Your task to perform on an android device: Open settings on Google Maps Image 0: 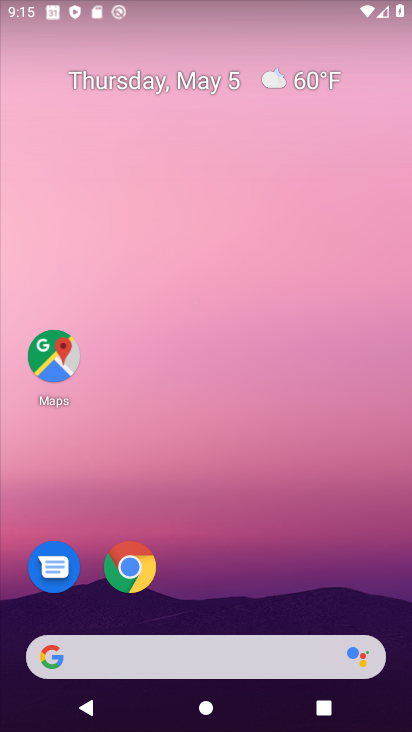
Step 0: drag from (213, 728) to (219, 259)
Your task to perform on an android device: Open settings on Google Maps Image 1: 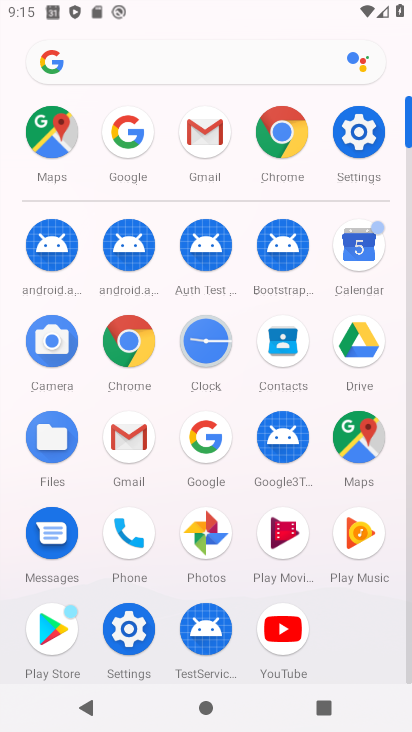
Step 1: click (357, 441)
Your task to perform on an android device: Open settings on Google Maps Image 2: 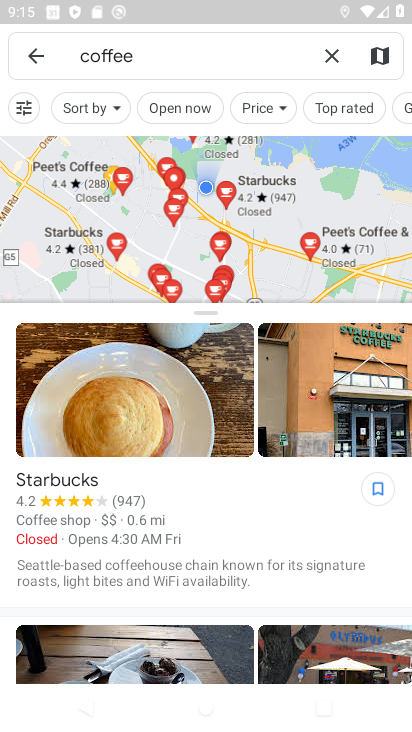
Step 2: click (31, 51)
Your task to perform on an android device: Open settings on Google Maps Image 3: 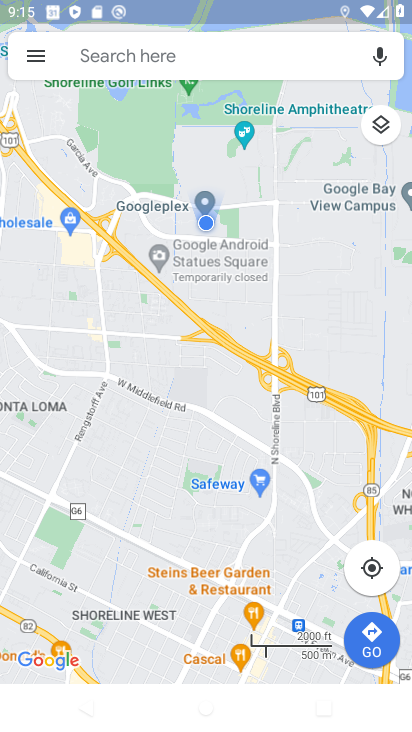
Step 3: click (31, 51)
Your task to perform on an android device: Open settings on Google Maps Image 4: 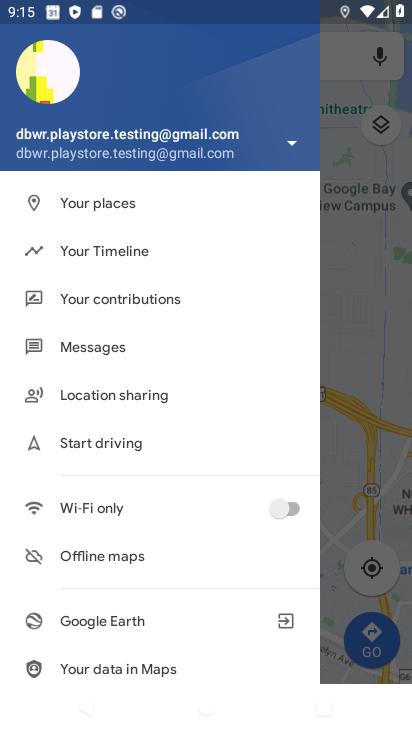
Step 4: drag from (145, 659) to (127, 219)
Your task to perform on an android device: Open settings on Google Maps Image 5: 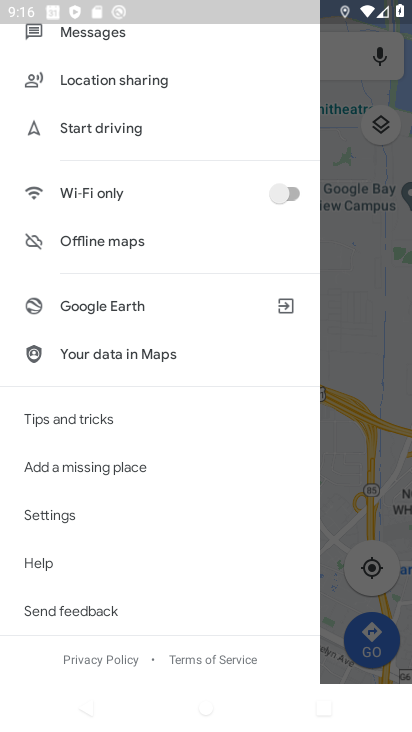
Step 5: click (55, 516)
Your task to perform on an android device: Open settings on Google Maps Image 6: 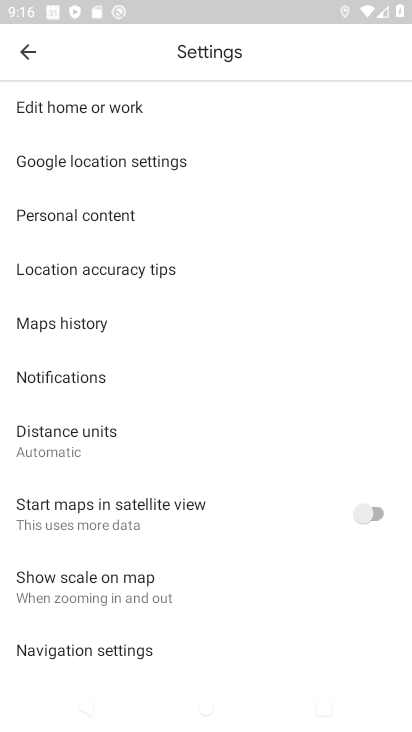
Step 6: task complete